Your task to perform on an android device: Check the news Image 0: 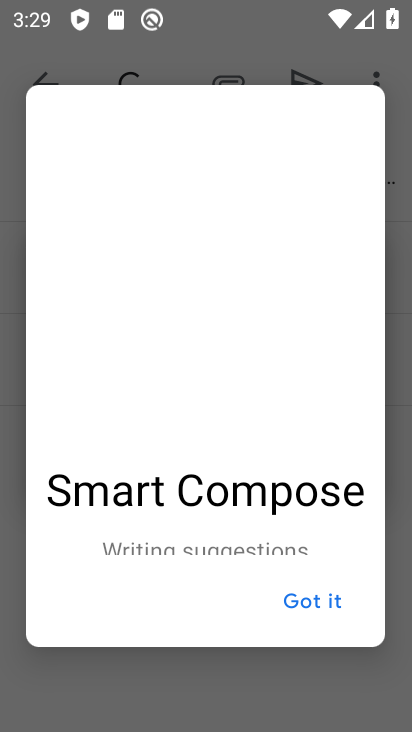
Step 0: press home button
Your task to perform on an android device: Check the news Image 1: 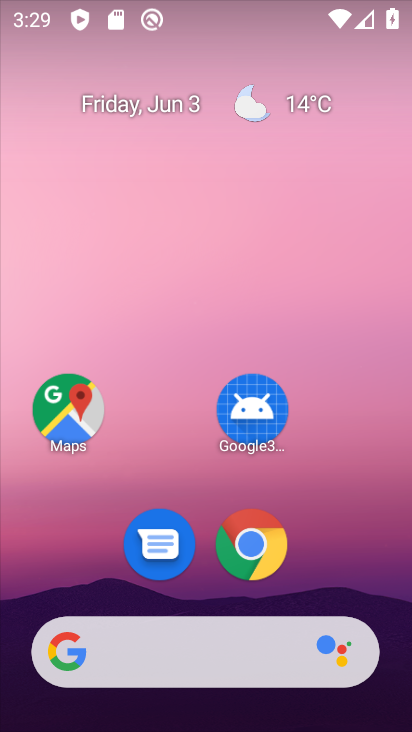
Step 1: task complete